Your task to perform on an android device: Open the calendar and show me this week's events? Image 0: 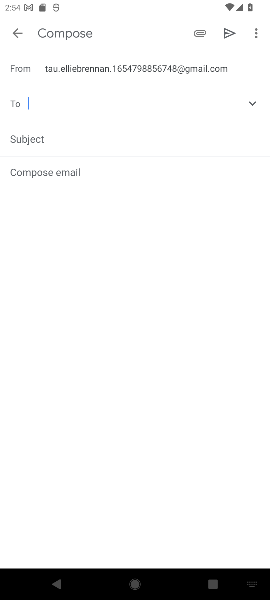
Step 0: press home button
Your task to perform on an android device: Open the calendar and show me this week's events? Image 1: 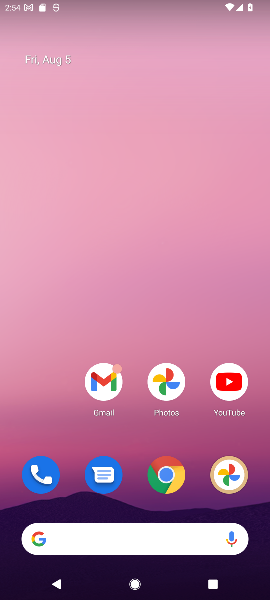
Step 1: drag from (249, 579) to (100, 88)
Your task to perform on an android device: Open the calendar and show me this week's events? Image 2: 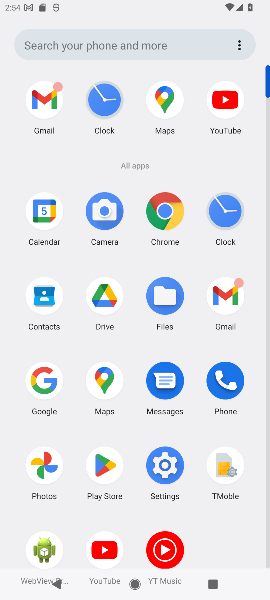
Step 2: click (40, 211)
Your task to perform on an android device: Open the calendar and show me this week's events? Image 3: 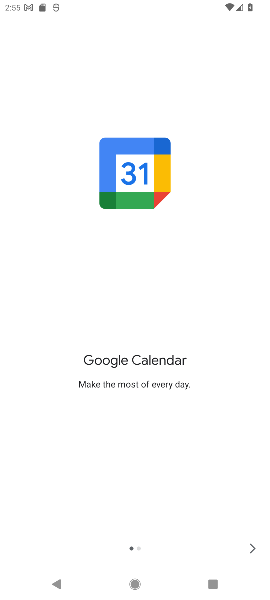
Step 3: click (251, 547)
Your task to perform on an android device: Open the calendar and show me this week's events? Image 4: 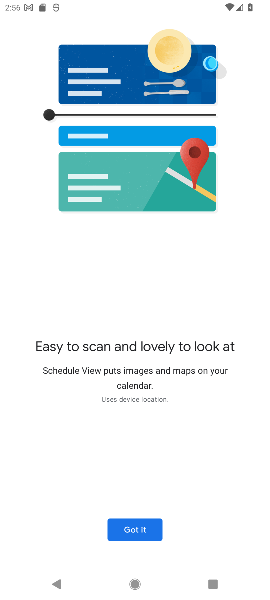
Step 4: click (134, 524)
Your task to perform on an android device: Open the calendar and show me this week's events? Image 5: 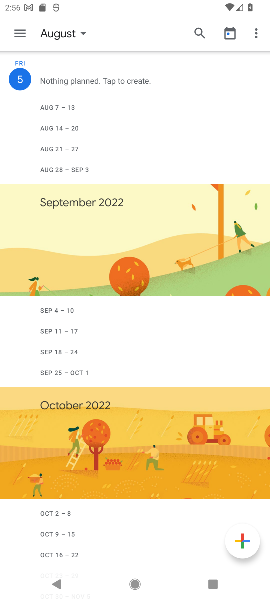
Step 5: click (19, 31)
Your task to perform on an android device: Open the calendar and show me this week's events? Image 6: 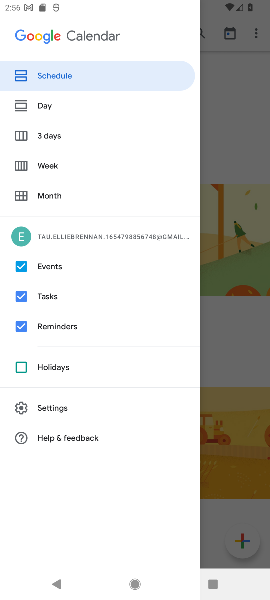
Step 6: click (40, 159)
Your task to perform on an android device: Open the calendar and show me this week's events? Image 7: 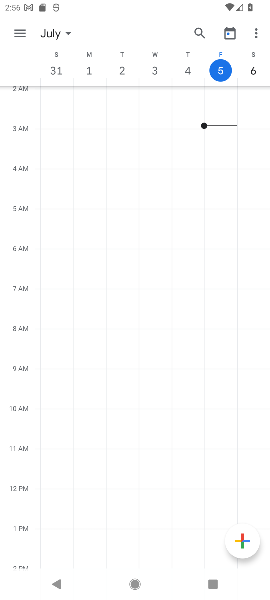
Step 7: click (14, 29)
Your task to perform on an android device: Open the calendar and show me this week's events? Image 8: 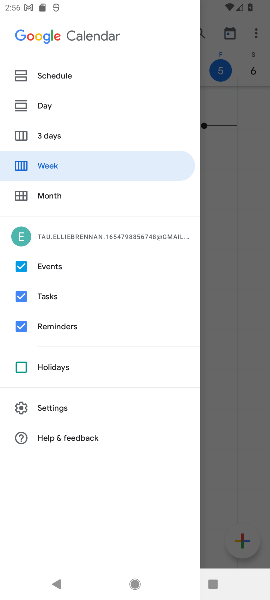
Step 8: click (48, 73)
Your task to perform on an android device: Open the calendar and show me this week's events? Image 9: 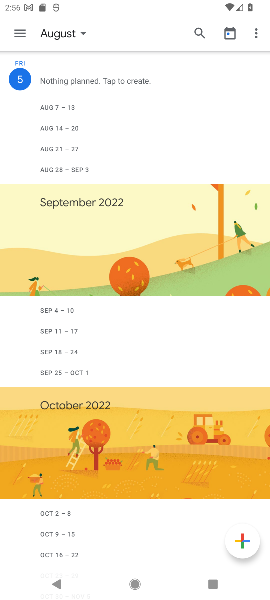
Step 9: task complete